Your task to perform on an android device: Open internet settings Image 0: 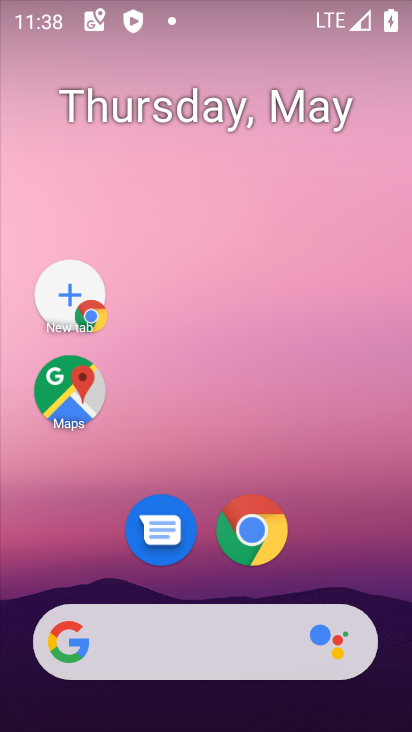
Step 0: drag from (368, 656) to (173, 63)
Your task to perform on an android device: Open internet settings Image 1: 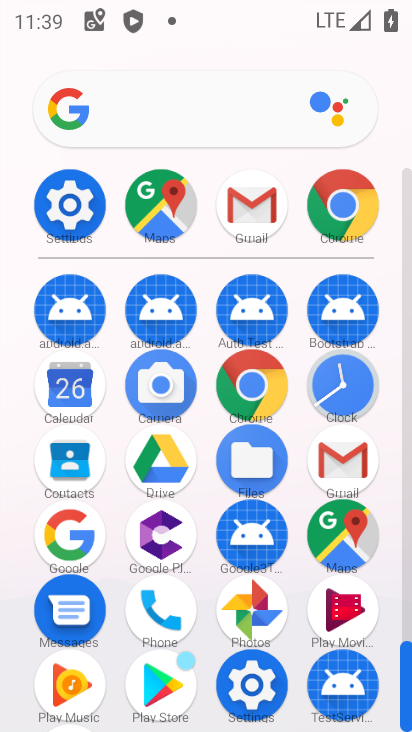
Step 1: click (72, 213)
Your task to perform on an android device: Open internet settings Image 2: 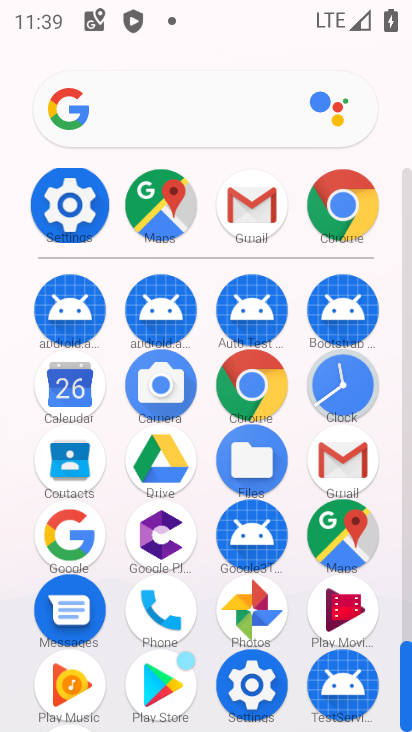
Step 2: click (76, 210)
Your task to perform on an android device: Open internet settings Image 3: 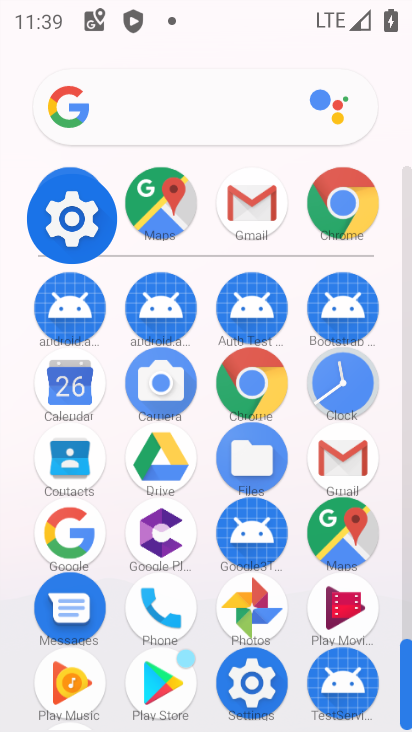
Step 3: click (77, 209)
Your task to perform on an android device: Open internet settings Image 4: 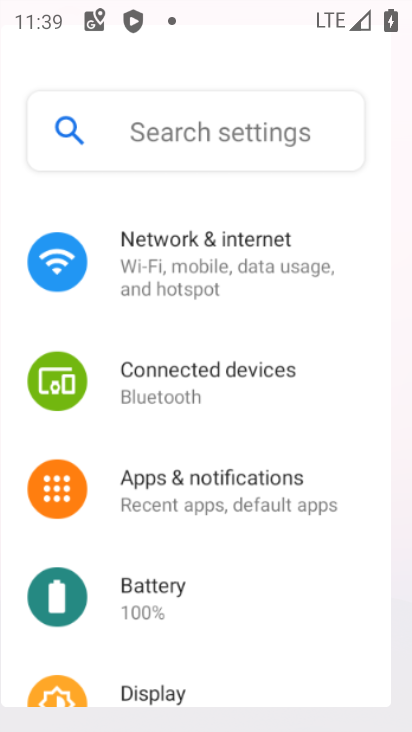
Step 4: click (77, 207)
Your task to perform on an android device: Open internet settings Image 5: 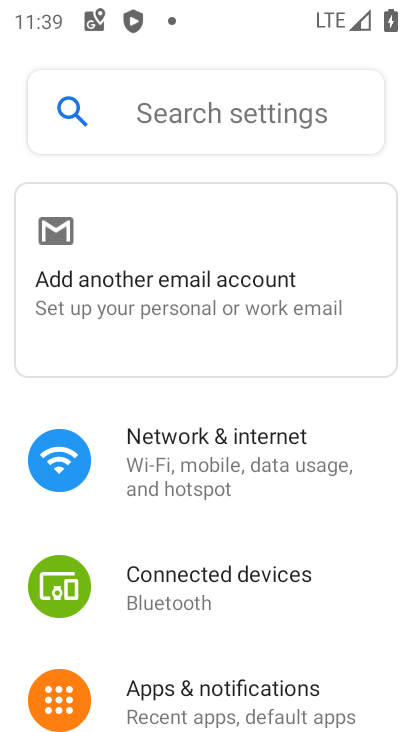
Step 5: click (179, 472)
Your task to perform on an android device: Open internet settings Image 6: 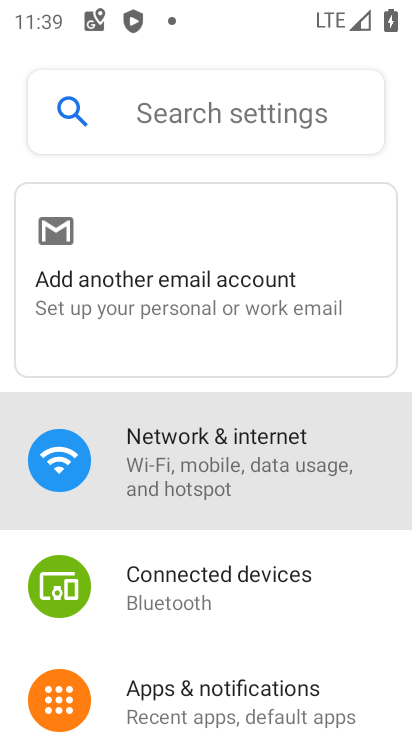
Step 6: click (180, 471)
Your task to perform on an android device: Open internet settings Image 7: 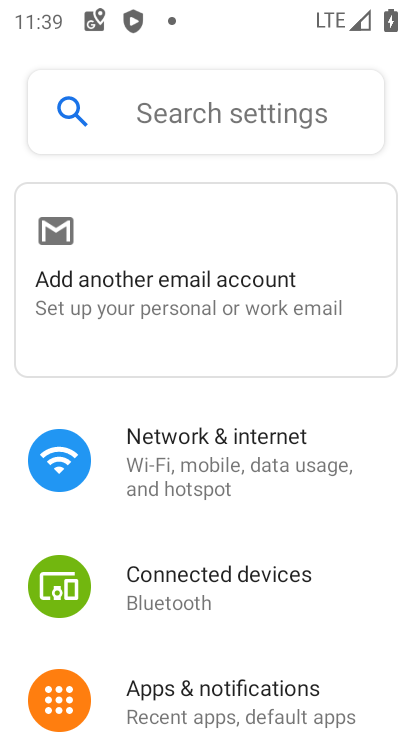
Step 7: click (185, 476)
Your task to perform on an android device: Open internet settings Image 8: 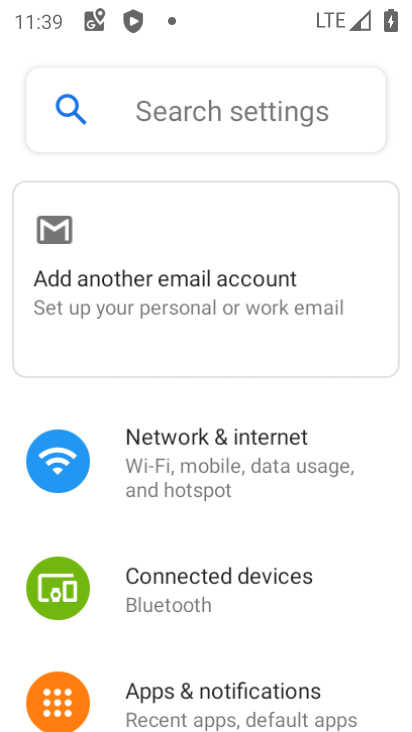
Step 8: click (187, 474)
Your task to perform on an android device: Open internet settings Image 9: 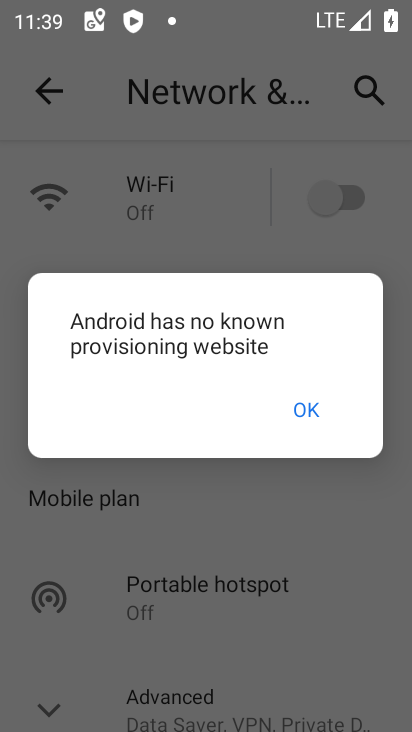
Step 9: click (324, 404)
Your task to perform on an android device: Open internet settings Image 10: 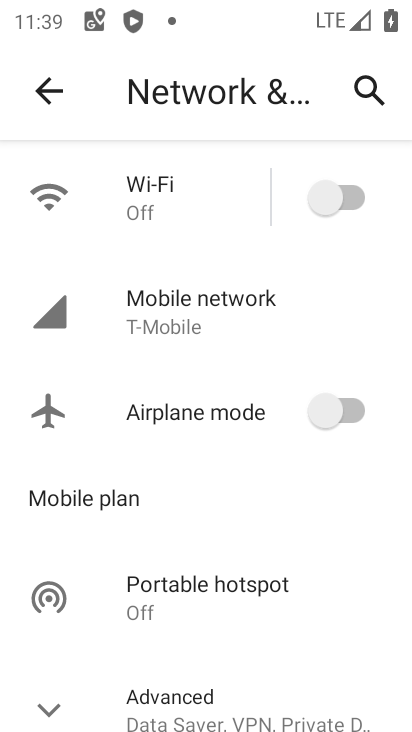
Step 10: click (39, 94)
Your task to perform on an android device: Open internet settings Image 11: 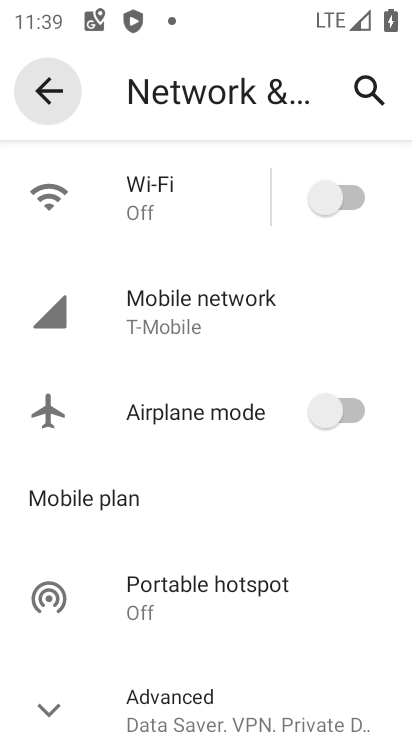
Step 11: click (39, 94)
Your task to perform on an android device: Open internet settings Image 12: 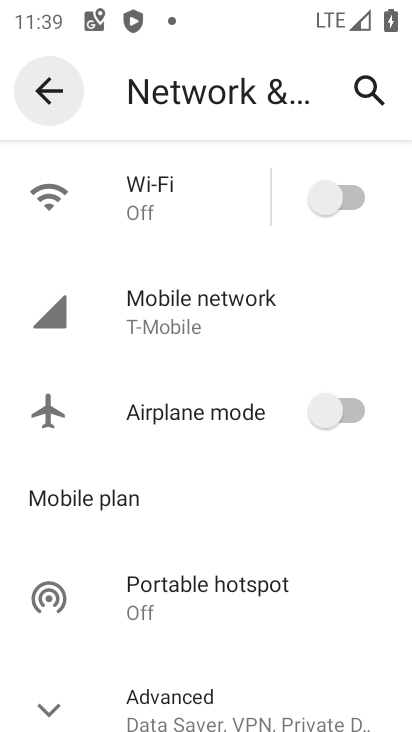
Step 12: click (39, 94)
Your task to perform on an android device: Open internet settings Image 13: 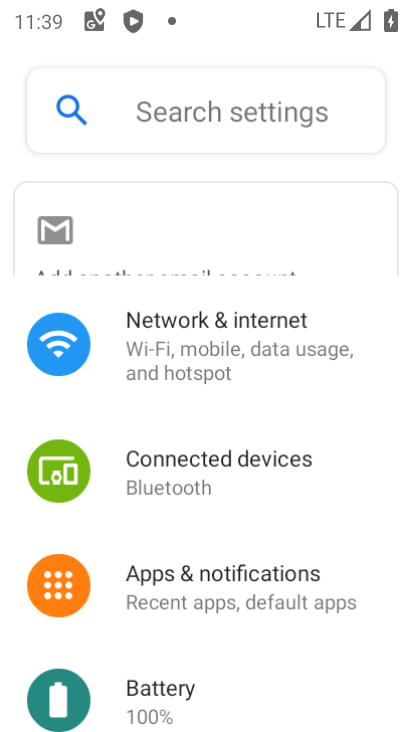
Step 13: click (40, 93)
Your task to perform on an android device: Open internet settings Image 14: 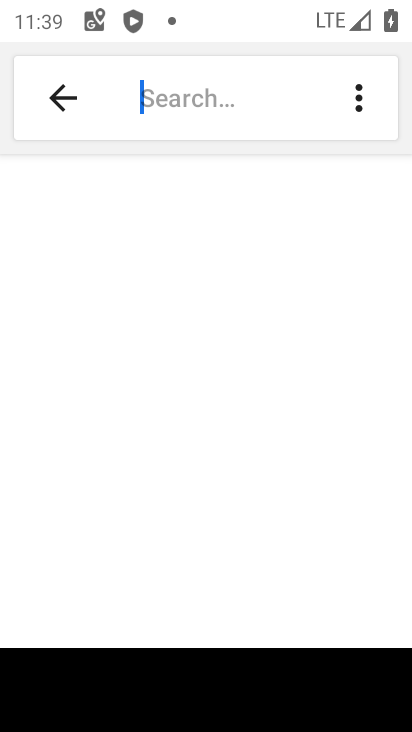
Step 14: click (60, 105)
Your task to perform on an android device: Open internet settings Image 15: 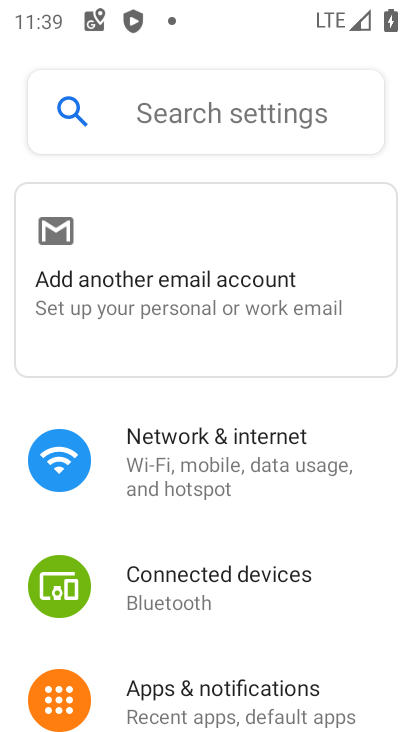
Step 15: click (209, 463)
Your task to perform on an android device: Open internet settings Image 16: 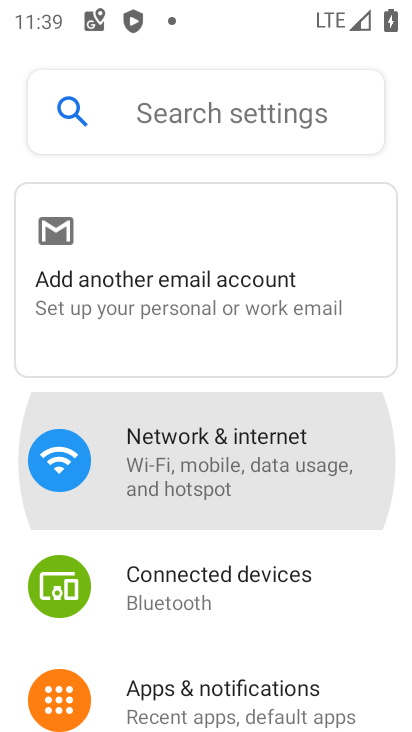
Step 16: click (208, 462)
Your task to perform on an android device: Open internet settings Image 17: 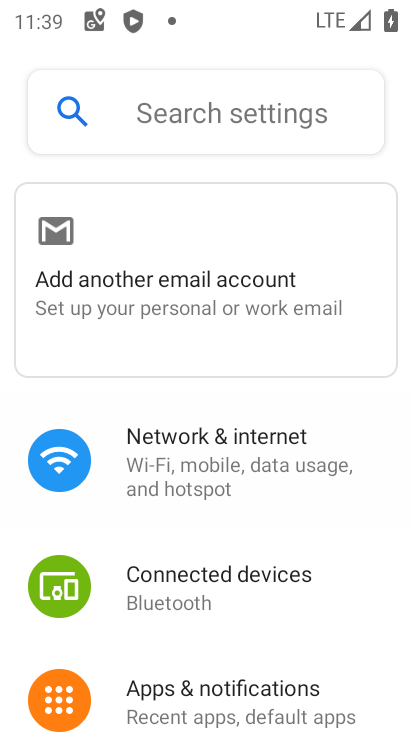
Step 17: click (208, 462)
Your task to perform on an android device: Open internet settings Image 18: 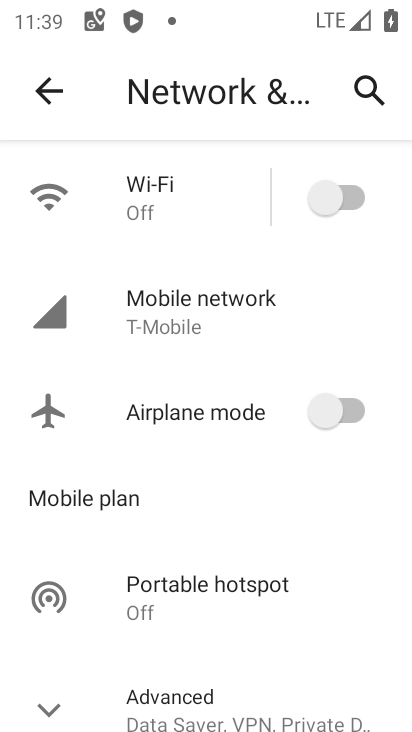
Step 18: task complete